Your task to perform on an android device: delete location history Image 0: 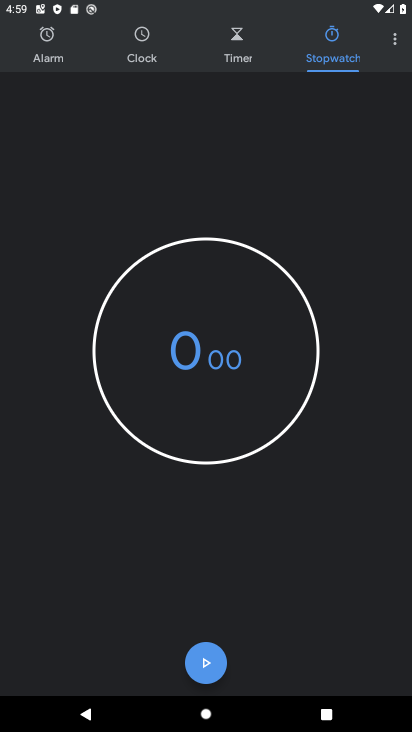
Step 0: press home button
Your task to perform on an android device: delete location history Image 1: 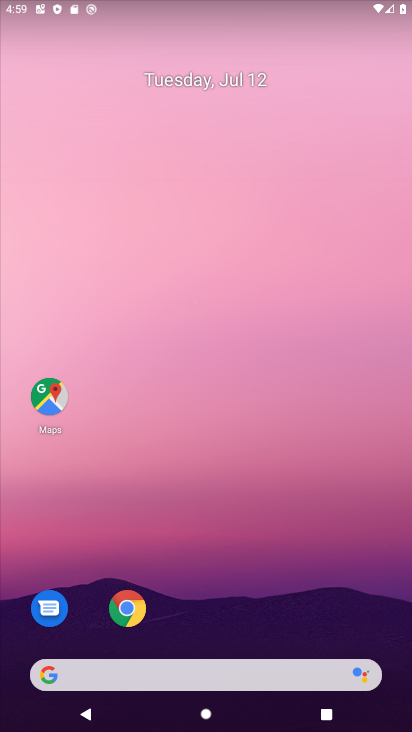
Step 1: click (51, 392)
Your task to perform on an android device: delete location history Image 2: 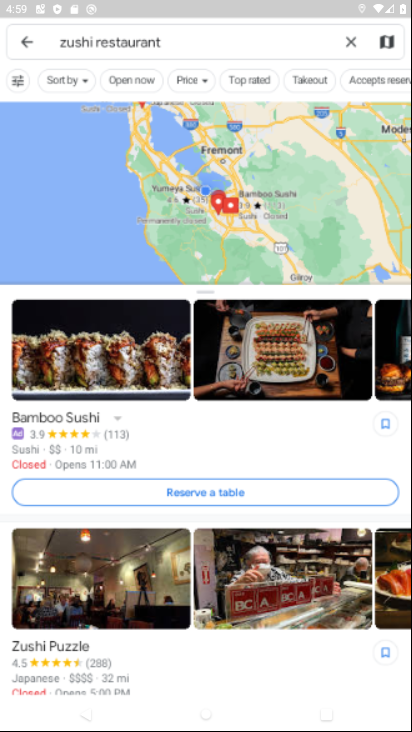
Step 2: click (28, 35)
Your task to perform on an android device: delete location history Image 3: 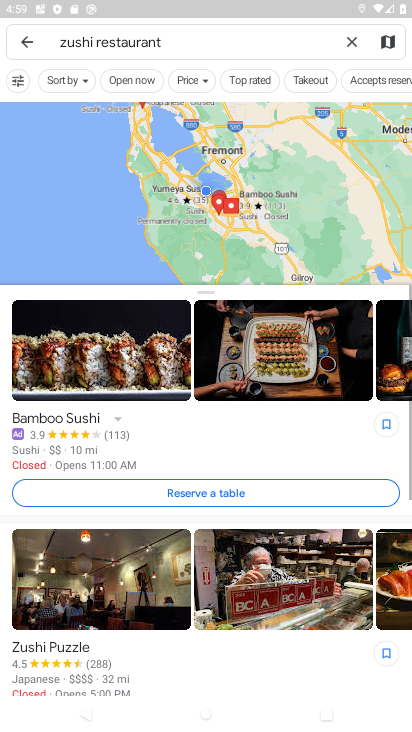
Step 3: click (32, 45)
Your task to perform on an android device: delete location history Image 4: 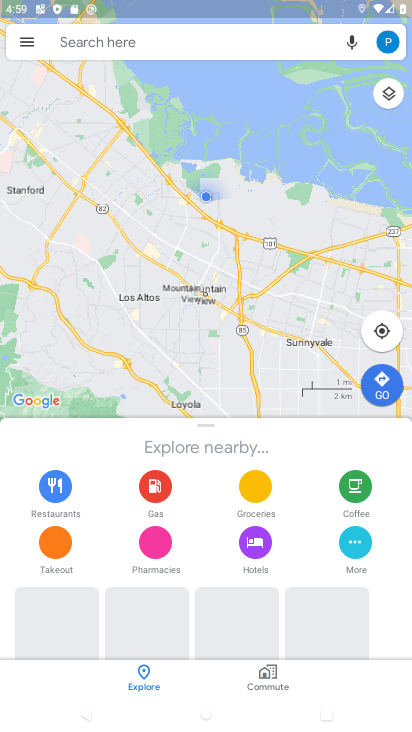
Step 4: click (32, 45)
Your task to perform on an android device: delete location history Image 5: 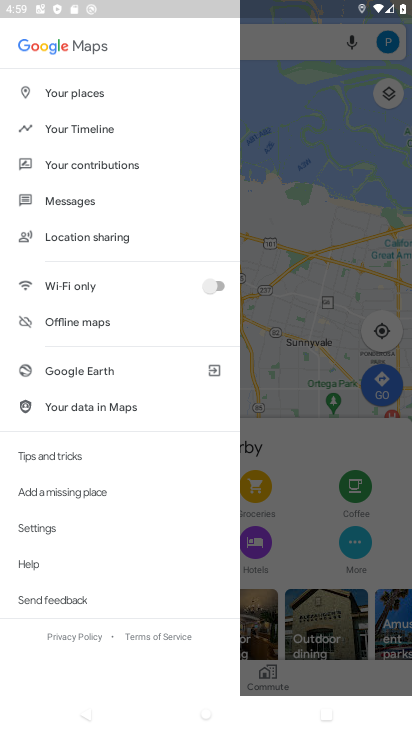
Step 5: click (40, 533)
Your task to perform on an android device: delete location history Image 6: 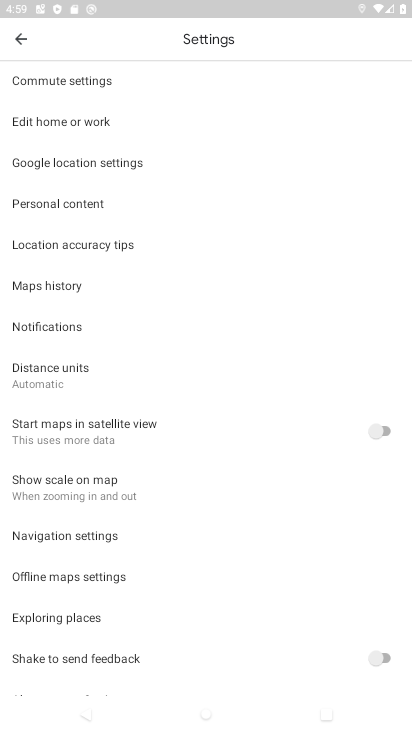
Step 6: press back button
Your task to perform on an android device: delete location history Image 7: 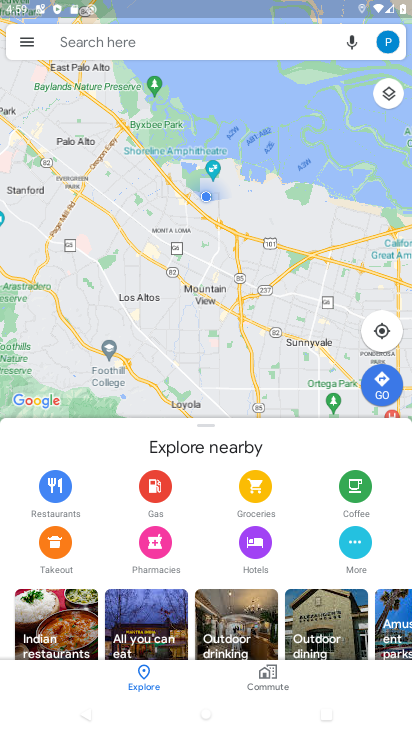
Step 7: click (29, 42)
Your task to perform on an android device: delete location history Image 8: 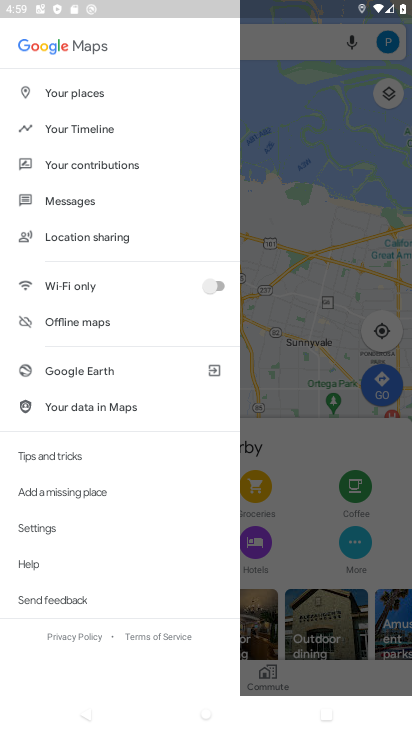
Step 8: drag from (87, 94) to (148, 566)
Your task to perform on an android device: delete location history Image 9: 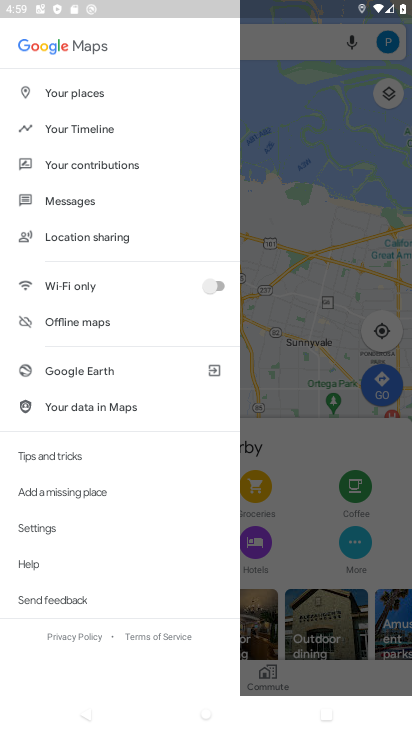
Step 9: click (108, 126)
Your task to perform on an android device: delete location history Image 10: 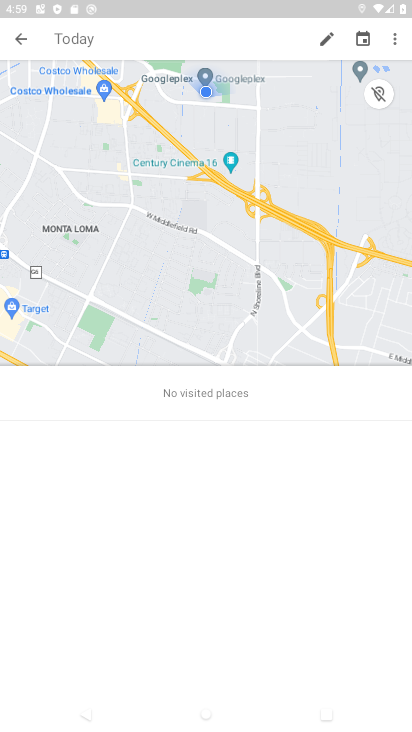
Step 10: click (402, 37)
Your task to perform on an android device: delete location history Image 11: 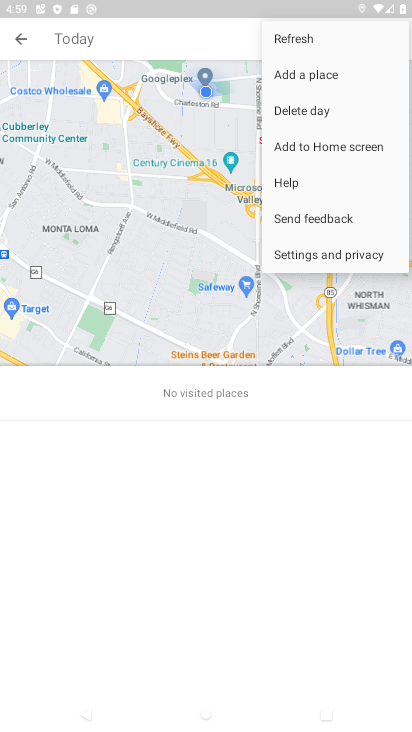
Step 11: click (322, 255)
Your task to perform on an android device: delete location history Image 12: 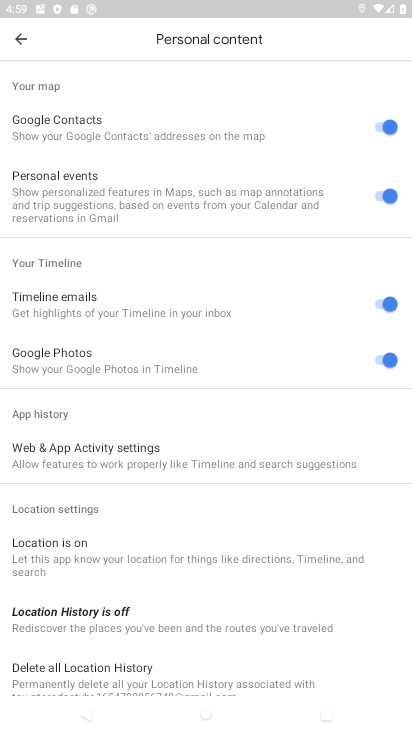
Step 12: click (98, 663)
Your task to perform on an android device: delete location history Image 13: 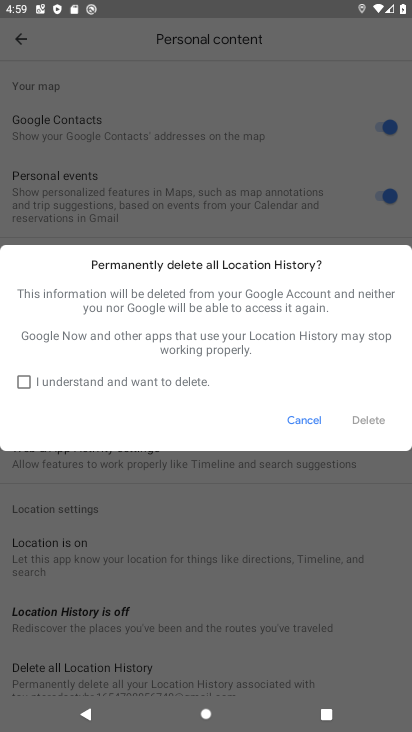
Step 13: click (21, 383)
Your task to perform on an android device: delete location history Image 14: 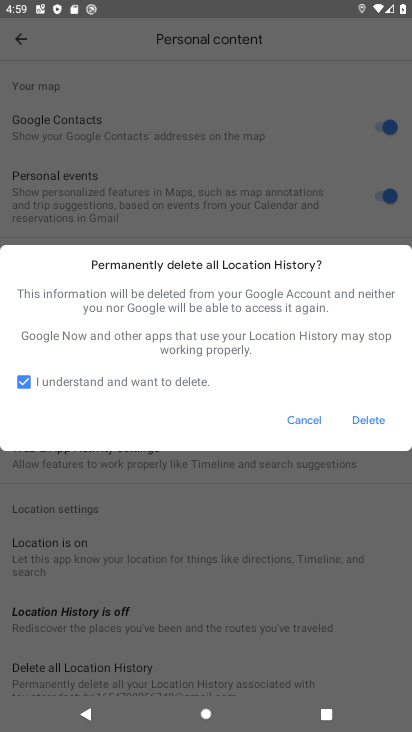
Step 14: click (354, 427)
Your task to perform on an android device: delete location history Image 15: 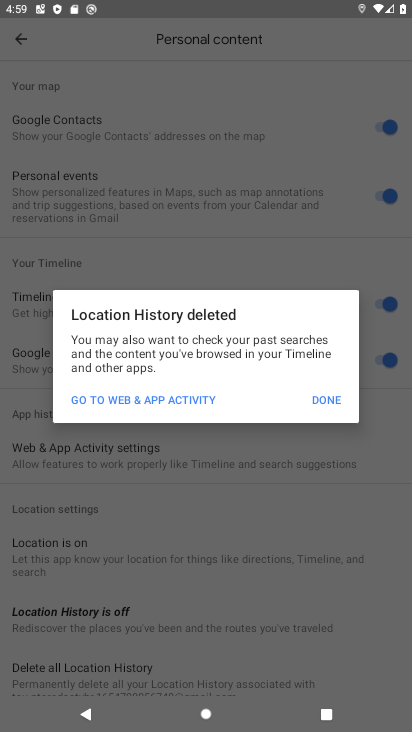
Step 15: click (321, 400)
Your task to perform on an android device: delete location history Image 16: 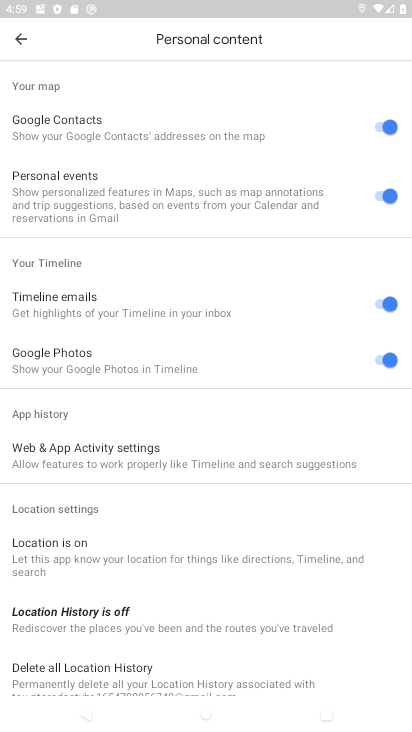
Step 16: task complete